Your task to perform on an android device: Search for pizza restaurants on Maps Image 0: 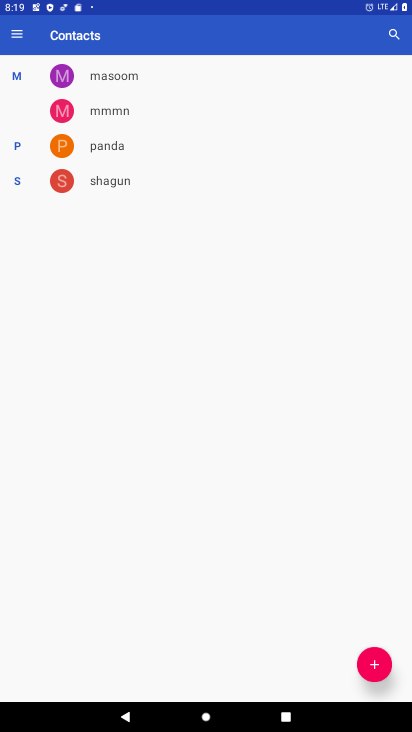
Step 0: press home button
Your task to perform on an android device: Search for pizza restaurants on Maps Image 1: 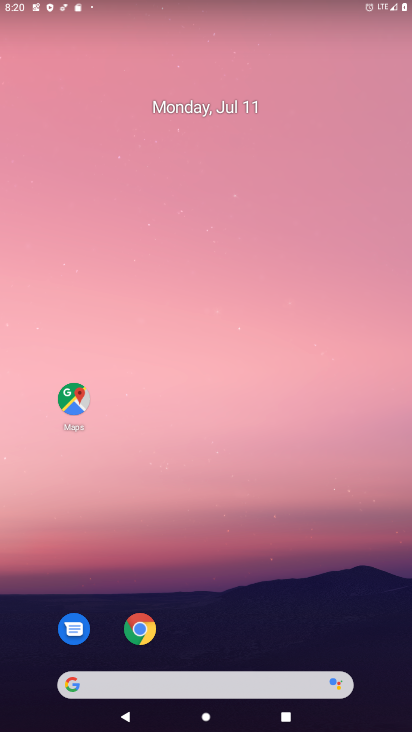
Step 1: click (73, 404)
Your task to perform on an android device: Search for pizza restaurants on Maps Image 2: 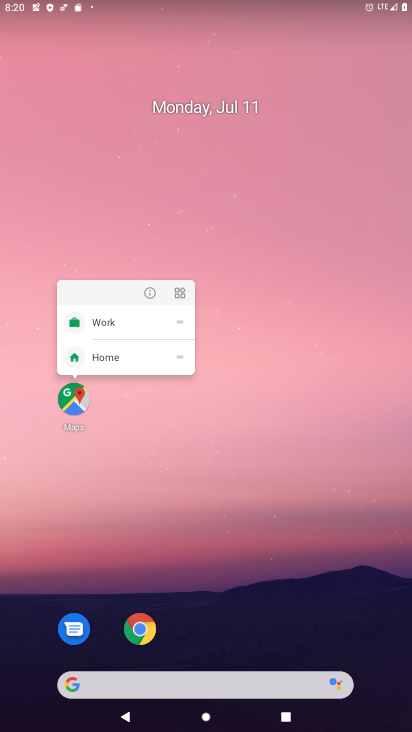
Step 2: click (79, 399)
Your task to perform on an android device: Search for pizza restaurants on Maps Image 3: 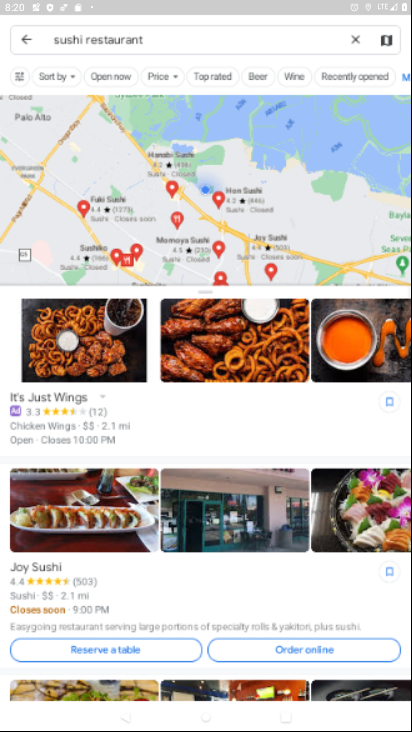
Step 3: click (352, 42)
Your task to perform on an android device: Search for pizza restaurants on Maps Image 4: 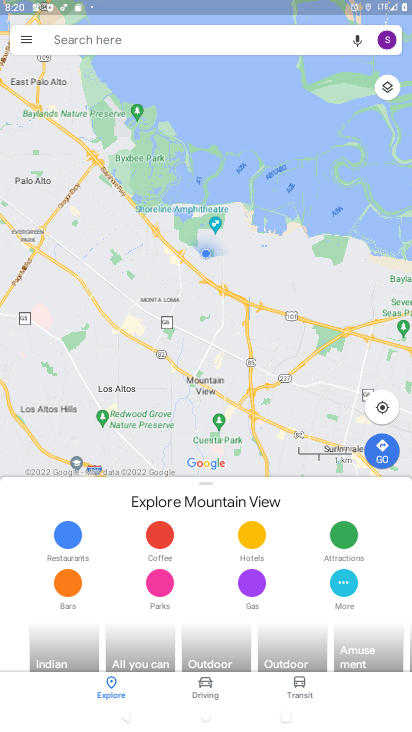
Step 4: click (179, 44)
Your task to perform on an android device: Search for pizza restaurants on Maps Image 5: 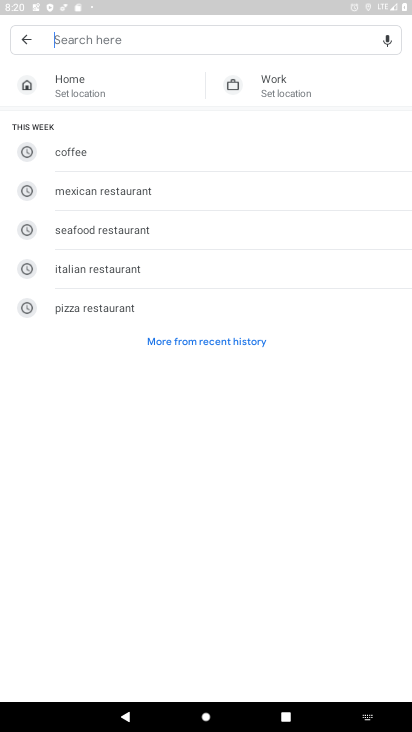
Step 5: type "pizza restaurents"
Your task to perform on an android device: Search for pizza restaurants on Maps Image 6: 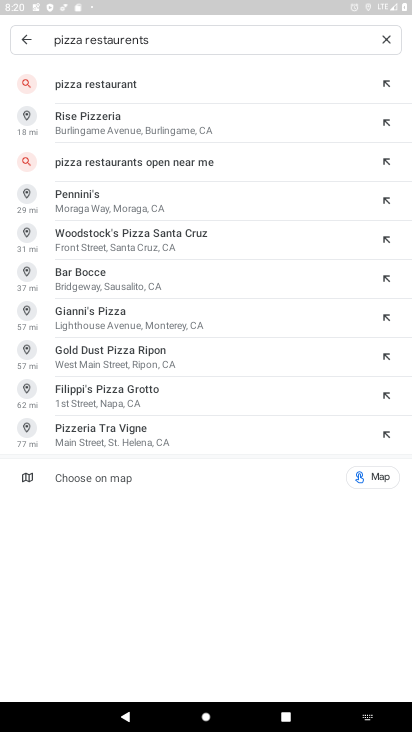
Step 6: click (146, 87)
Your task to perform on an android device: Search for pizza restaurants on Maps Image 7: 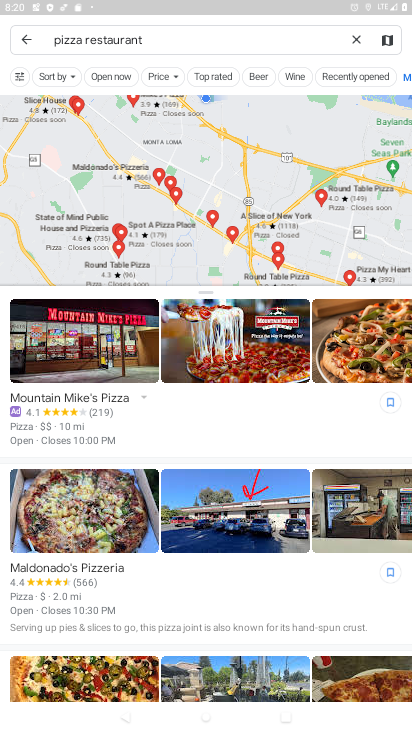
Step 7: task complete